Your task to perform on an android device: open a new tab in the chrome app Image 0: 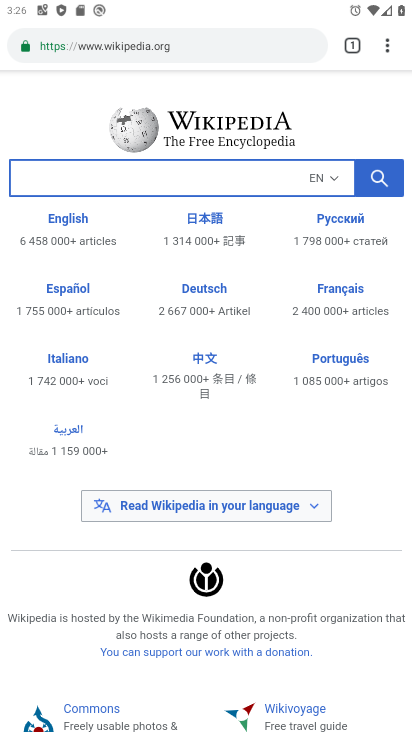
Step 0: press home button
Your task to perform on an android device: open a new tab in the chrome app Image 1: 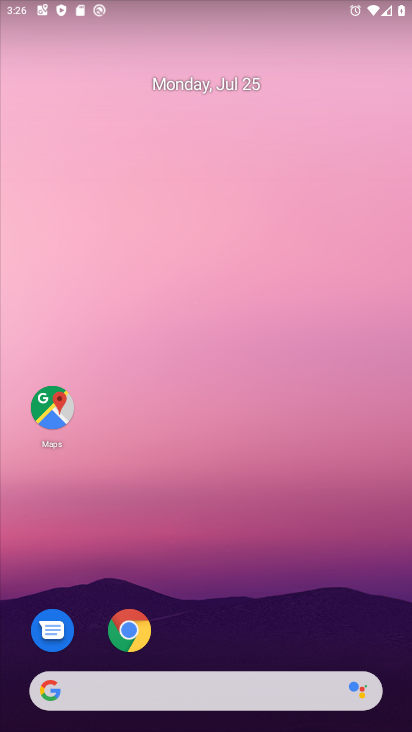
Step 1: drag from (219, 704) to (169, 4)
Your task to perform on an android device: open a new tab in the chrome app Image 2: 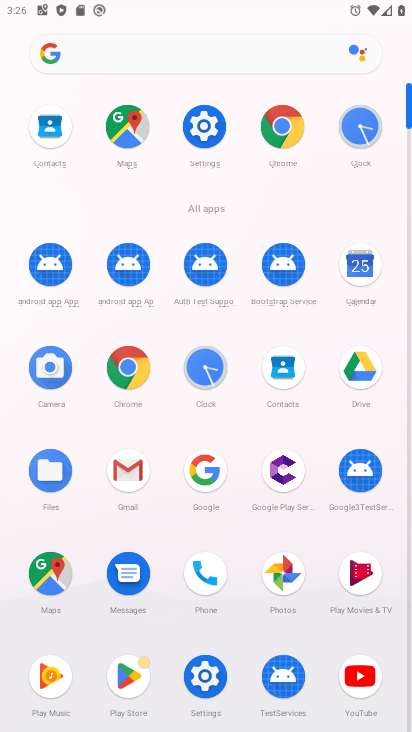
Step 2: click (283, 123)
Your task to perform on an android device: open a new tab in the chrome app Image 3: 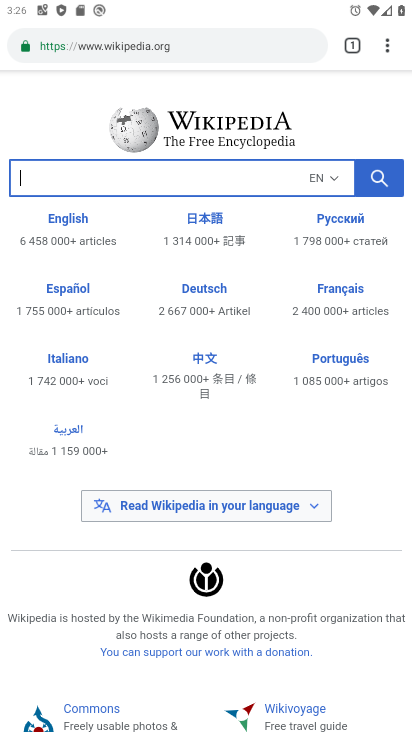
Step 3: task complete